Your task to perform on an android device: Open accessibility settings Image 0: 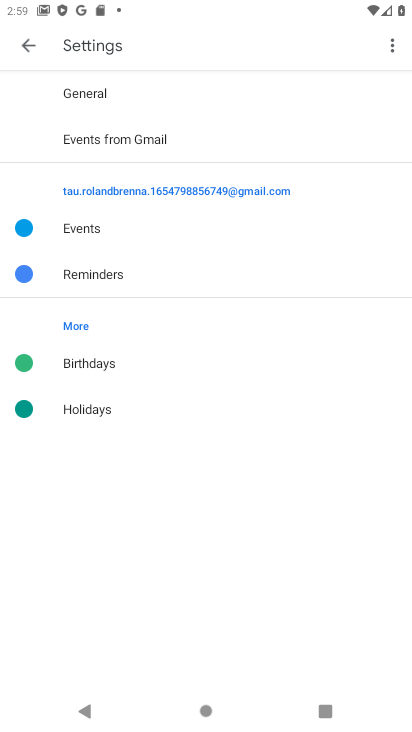
Step 0: press home button
Your task to perform on an android device: Open accessibility settings Image 1: 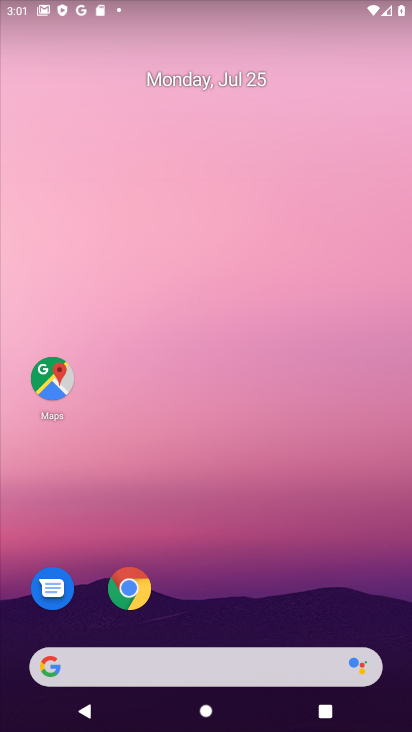
Step 1: drag from (392, 688) to (330, 117)
Your task to perform on an android device: Open accessibility settings Image 2: 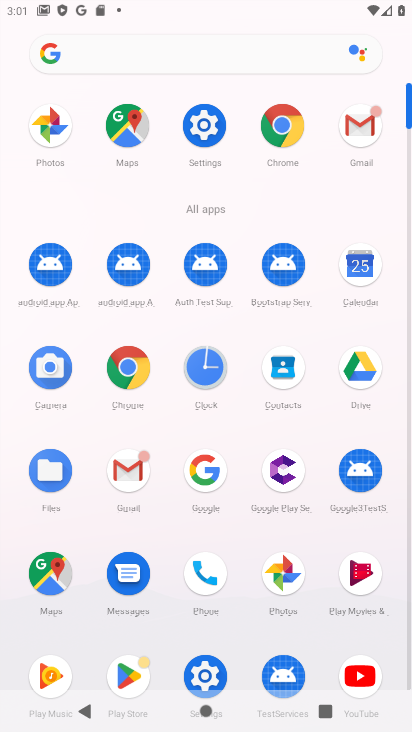
Step 2: click (212, 119)
Your task to perform on an android device: Open accessibility settings Image 3: 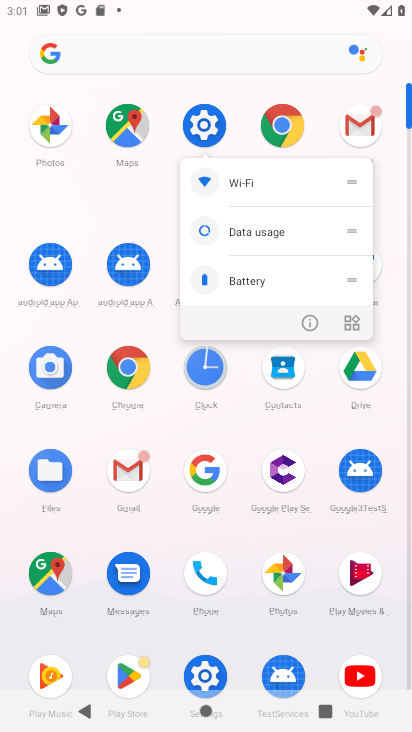
Step 3: click (205, 115)
Your task to perform on an android device: Open accessibility settings Image 4: 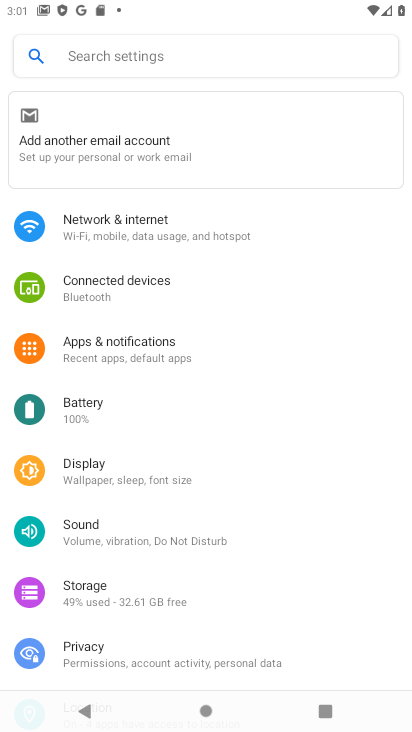
Step 4: drag from (325, 640) to (273, 215)
Your task to perform on an android device: Open accessibility settings Image 5: 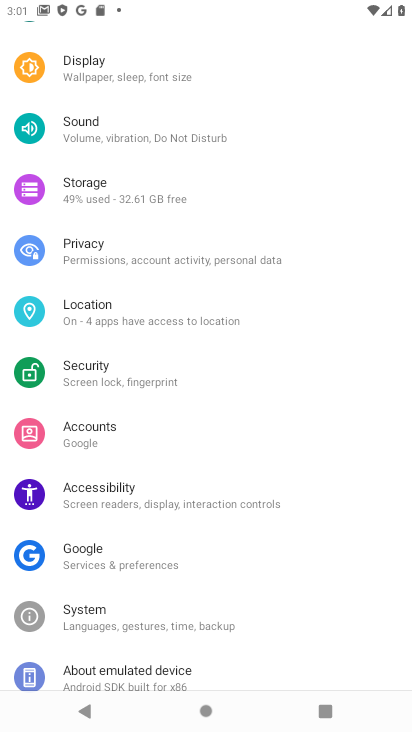
Step 5: click (103, 492)
Your task to perform on an android device: Open accessibility settings Image 6: 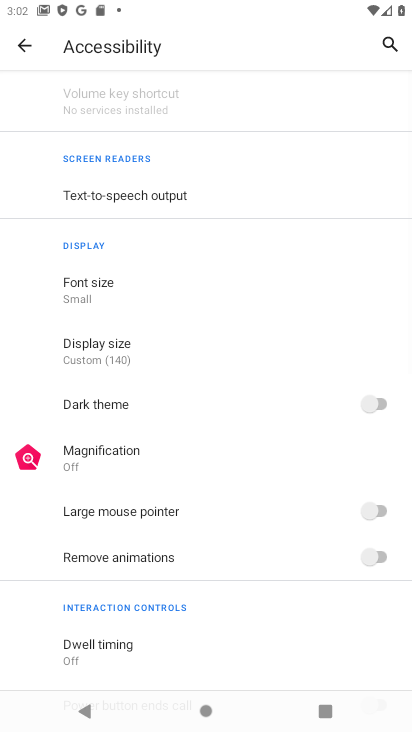
Step 6: task complete